Your task to perform on an android device: Open calendar and show me the fourth week of next month Image 0: 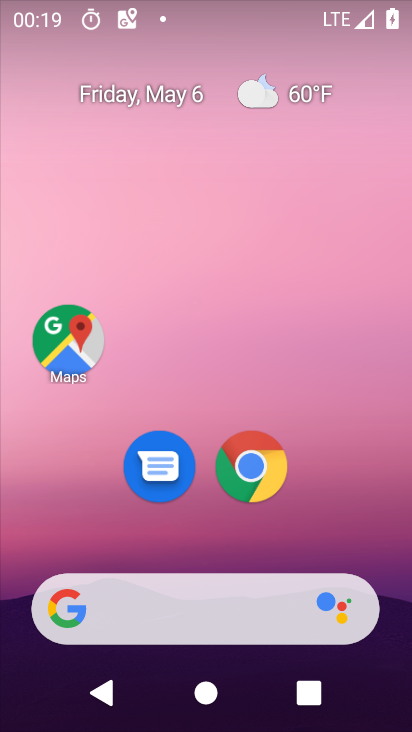
Step 0: drag from (226, 573) to (345, 150)
Your task to perform on an android device: Open calendar and show me the fourth week of next month Image 1: 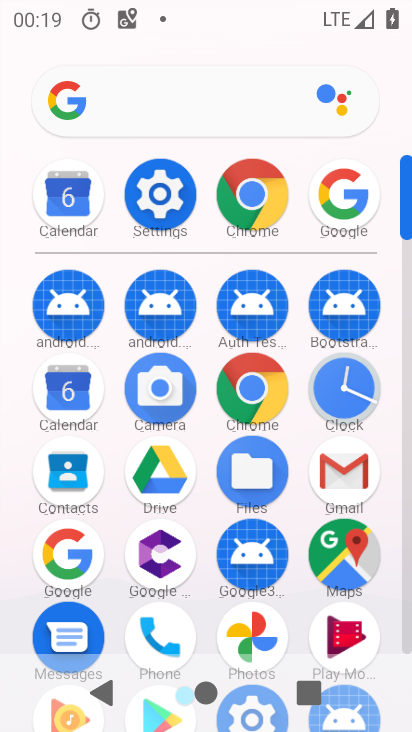
Step 1: click (59, 392)
Your task to perform on an android device: Open calendar and show me the fourth week of next month Image 2: 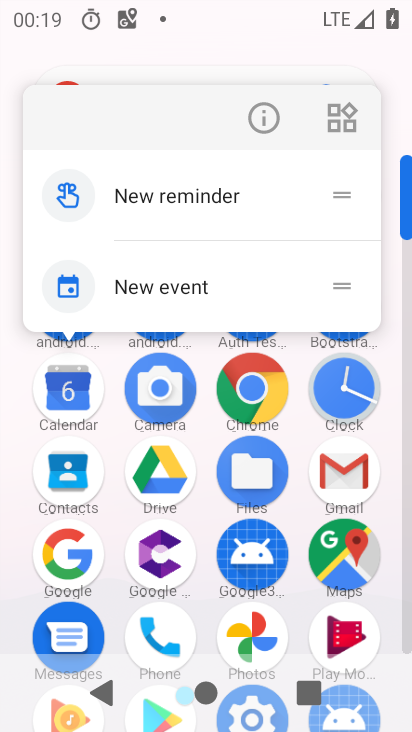
Step 2: click (59, 392)
Your task to perform on an android device: Open calendar and show me the fourth week of next month Image 3: 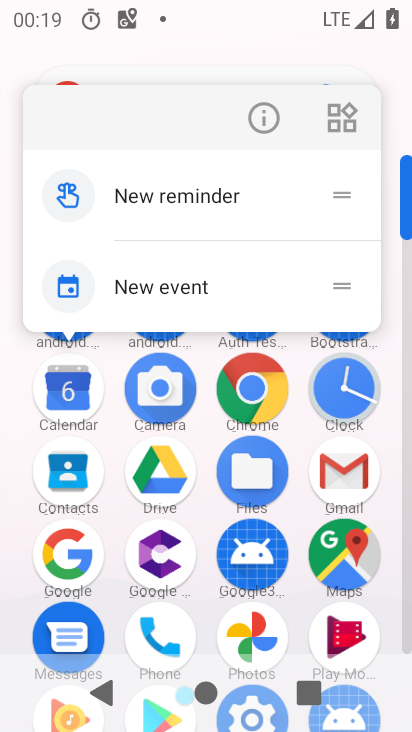
Step 3: click (79, 418)
Your task to perform on an android device: Open calendar and show me the fourth week of next month Image 4: 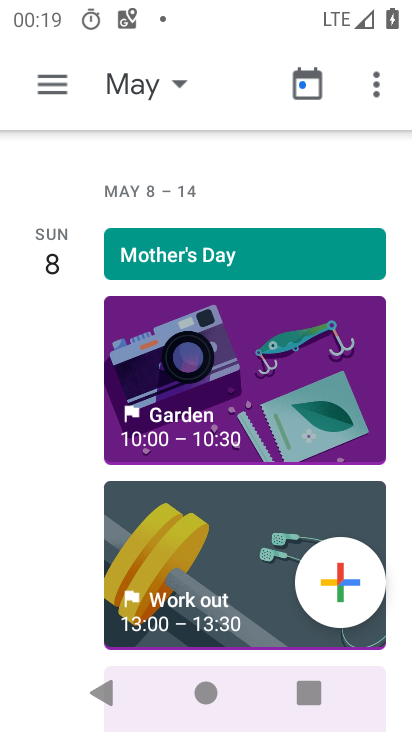
Step 4: click (55, 82)
Your task to perform on an android device: Open calendar and show me the fourth week of next month Image 5: 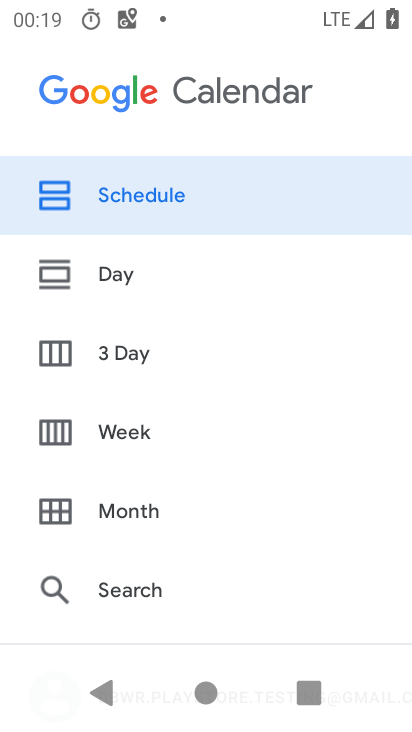
Step 5: click (273, 320)
Your task to perform on an android device: Open calendar and show me the fourth week of next month Image 6: 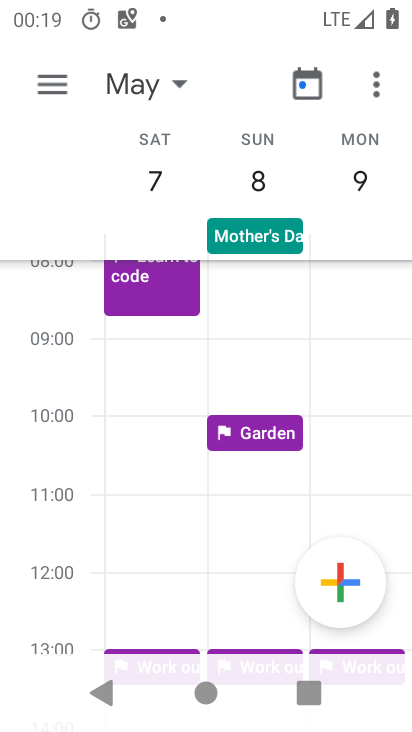
Step 6: click (132, 83)
Your task to perform on an android device: Open calendar and show me the fourth week of next month Image 7: 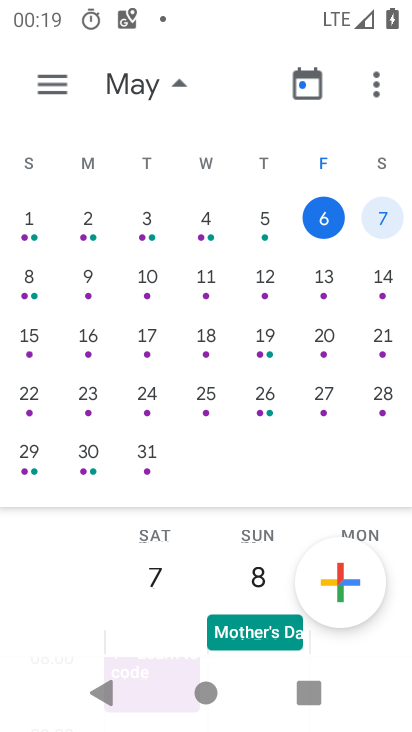
Step 7: click (310, 76)
Your task to perform on an android device: Open calendar and show me the fourth week of next month Image 8: 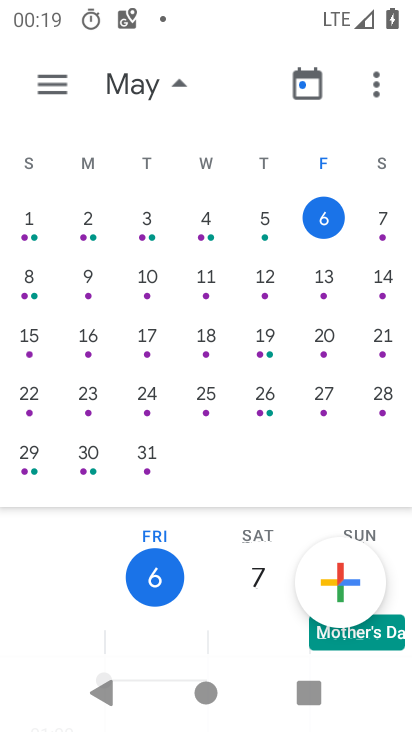
Step 8: drag from (370, 237) to (0, 319)
Your task to perform on an android device: Open calendar and show me the fourth week of next month Image 9: 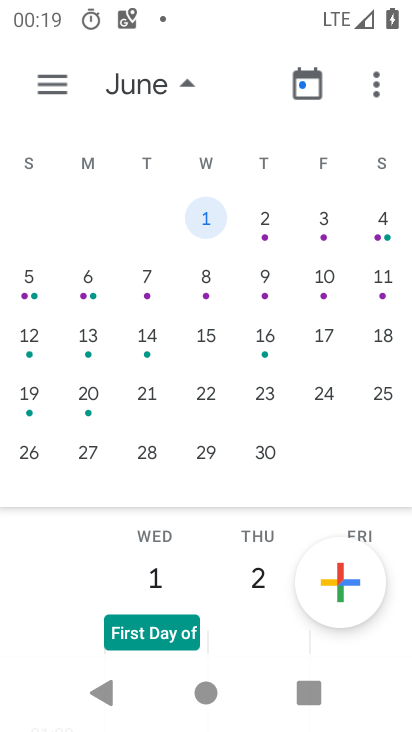
Step 9: click (29, 394)
Your task to perform on an android device: Open calendar and show me the fourth week of next month Image 10: 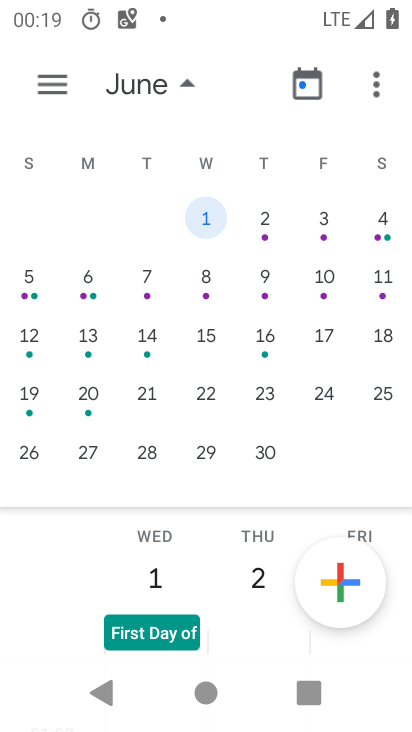
Step 10: click (35, 400)
Your task to perform on an android device: Open calendar and show me the fourth week of next month Image 11: 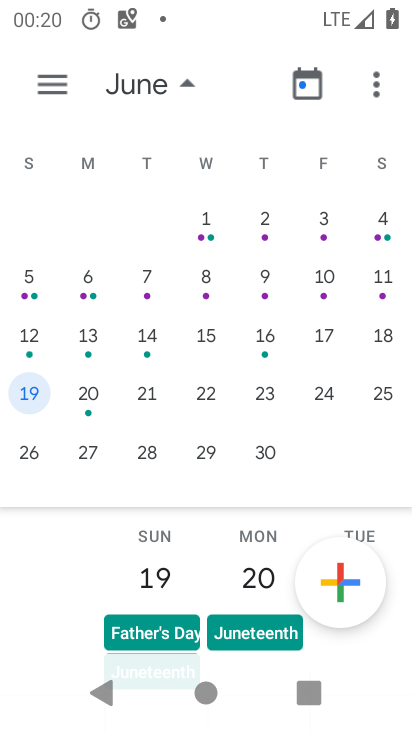
Step 11: task complete